Your task to perform on an android device: Go to Maps Image 0: 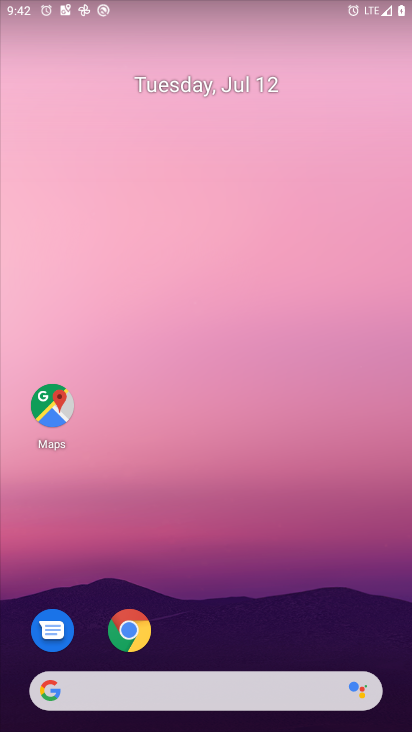
Step 0: press home button
Your task to perform on an android device: Go to Maps Image 1: 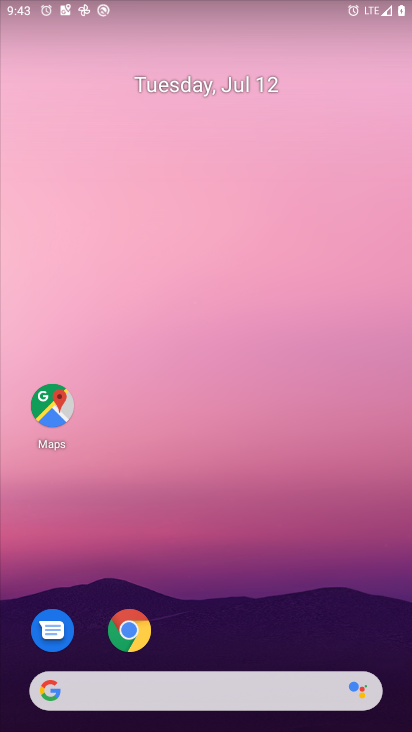
Step 1: click (46, 404)
Your task to perform on an android device: Go to Maps Image 2: 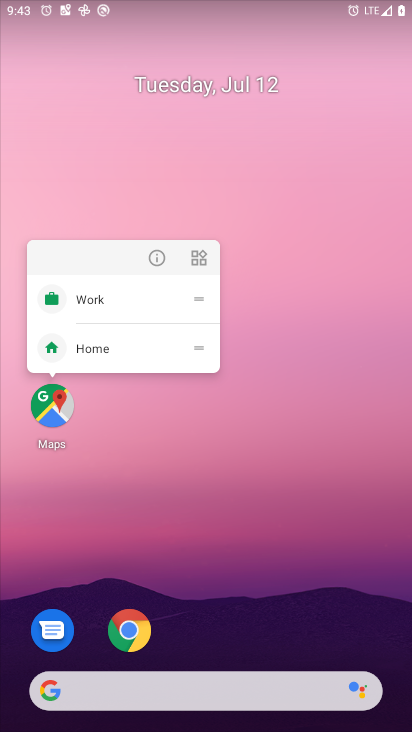
Step 2: click (46, 404)
Your task to perform on an android device: Go to Maps Image 3: 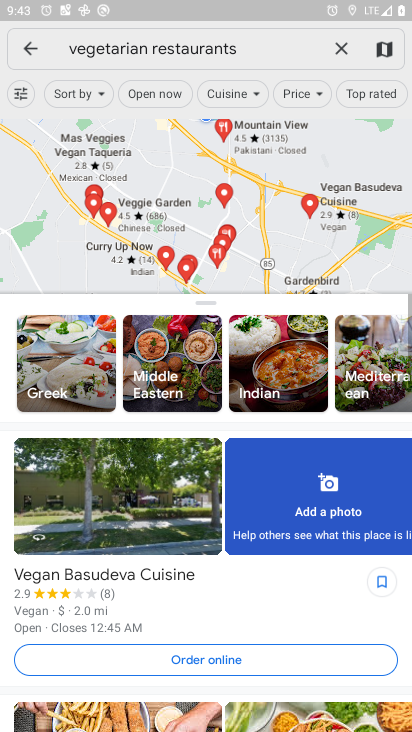
Step 3: click (28, 43)
Your task to perform on an android device: Go to Maps Image 4: 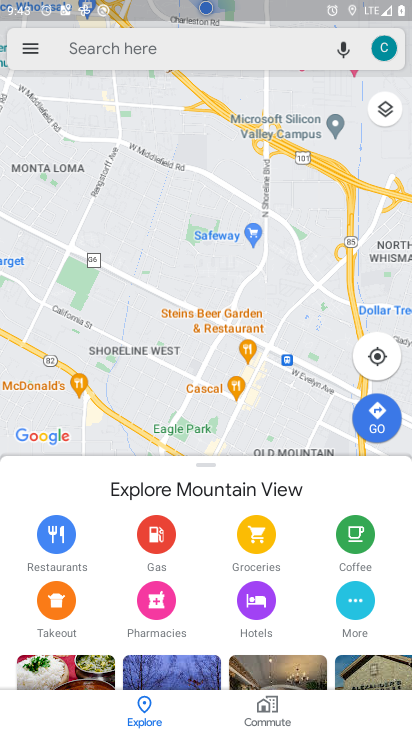
Step 4: task complete